Your task to perform on an android device: Go to Google Image 0: 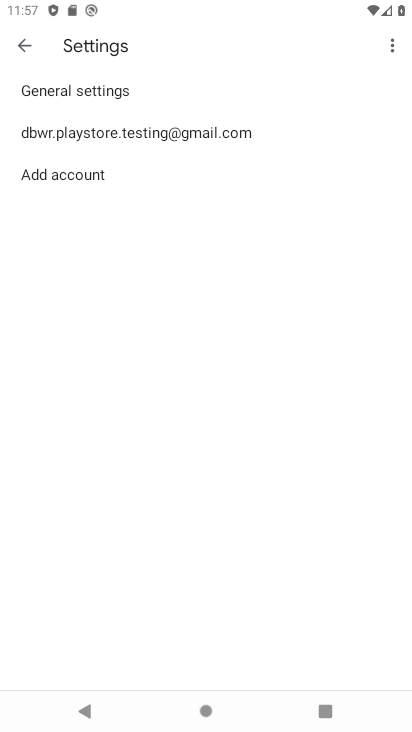
Step 0: press home button
Your task to perform on an android device: Go to Google Image 1: 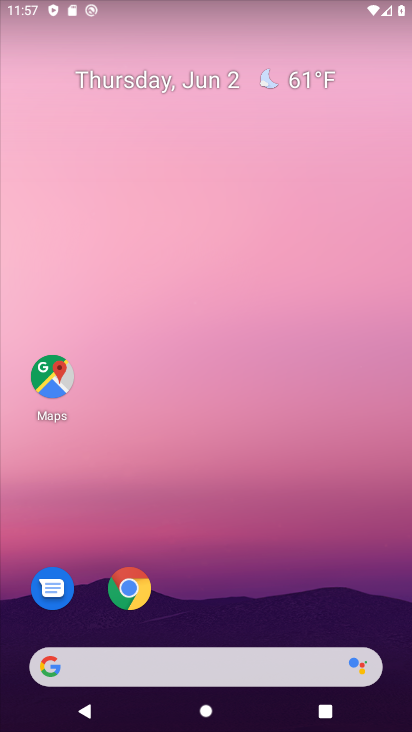
Step 1: drag from (178, 620) to (227, 157)
Your task to perform on an android device: Go to Google Image 2: 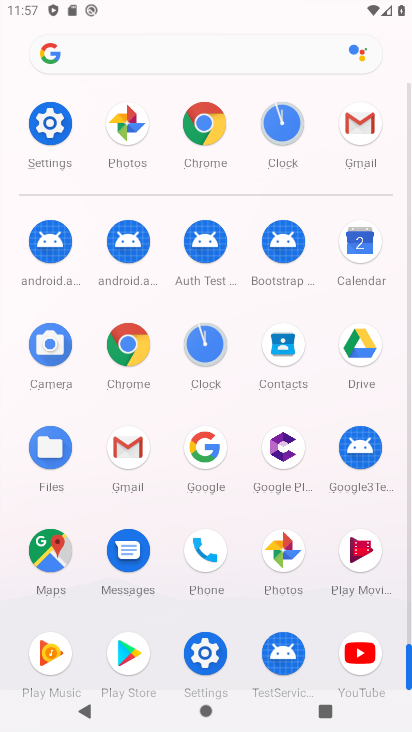
Step 2: click (202, 457)
Your task to perform on an android device: Go to Google Image 3: 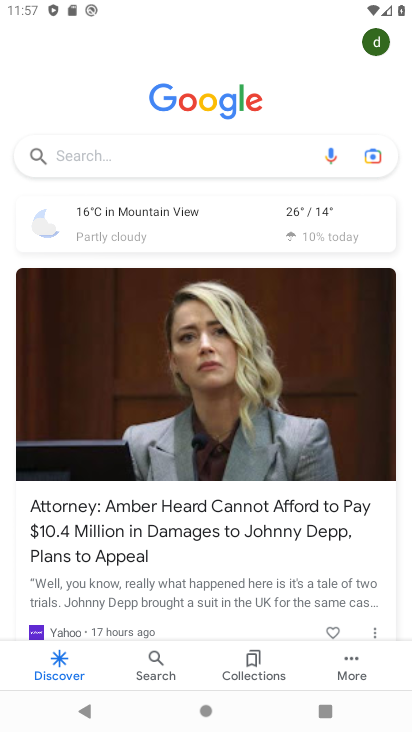
Step 3: task complete